Your task to perform on an android device: Go to Google Image 0: 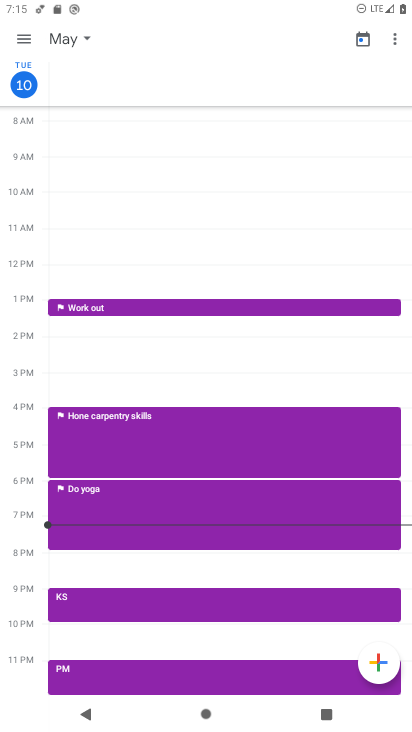
Step 0: press home button
Your task to perform on an android device: Go to Google Image 1: 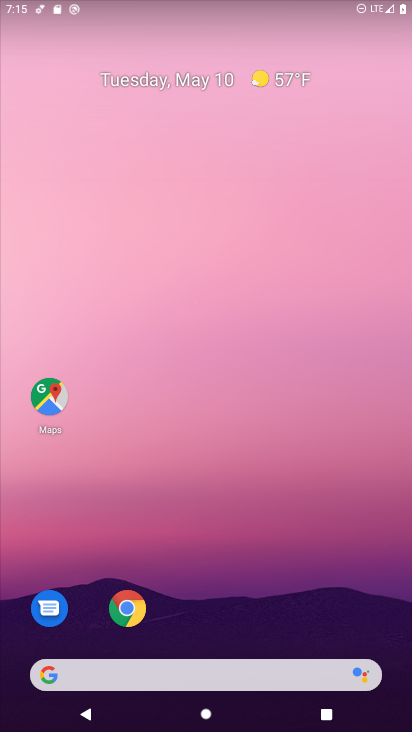
Step 1: drag from (300, 600) to (250, 1)
Your task to perform on an android device: Go to Google Image 2: 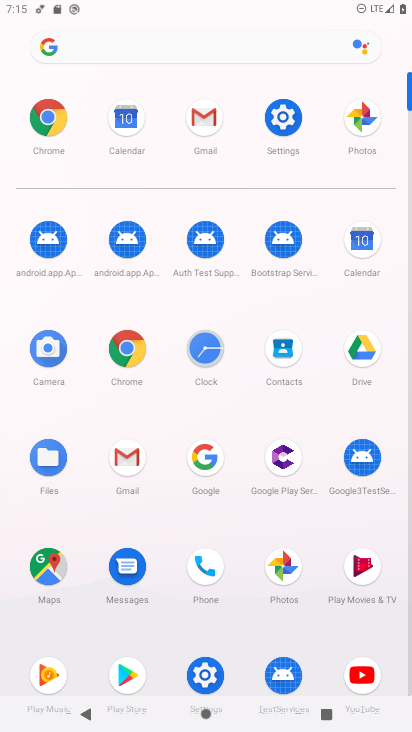
Step 2: click (211, 444)
Your task to perform on an android device: Go to Google Image 3: 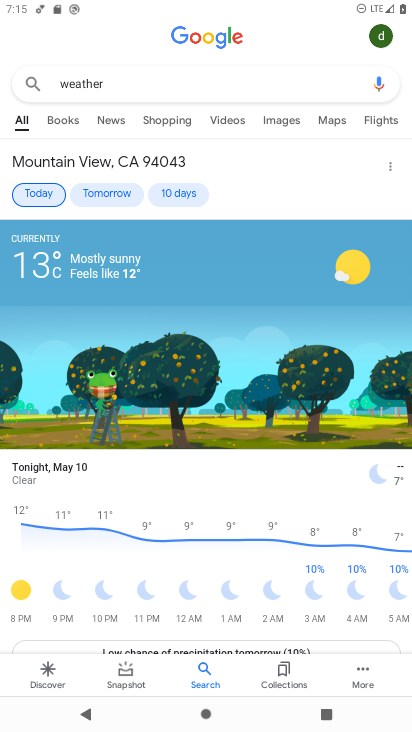
Step 3: press back button
Your task to perform on an android device: Go to Google Image 4: 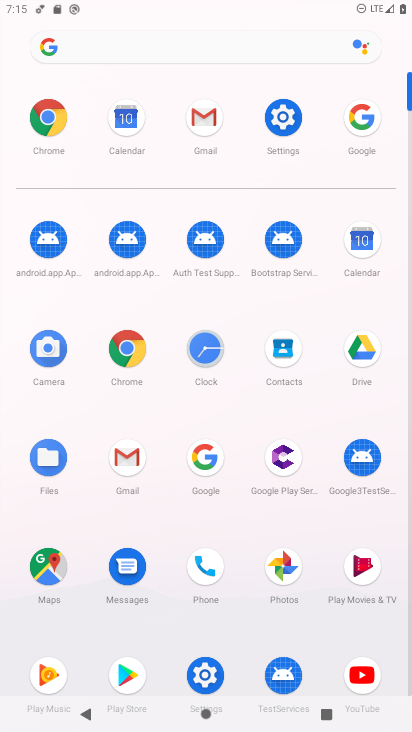
Step 4: click (204, 463)
Your task to perform on an android device: Go to Google Image 5: 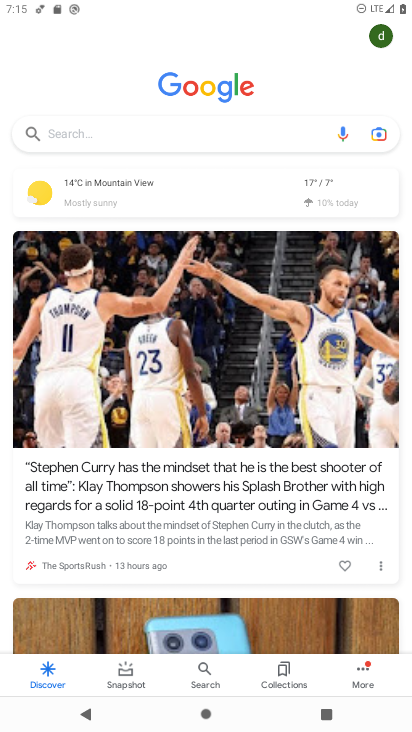
Step 5: task complete